Your task to perform on an android device: find photos in the google photos app Image 0: 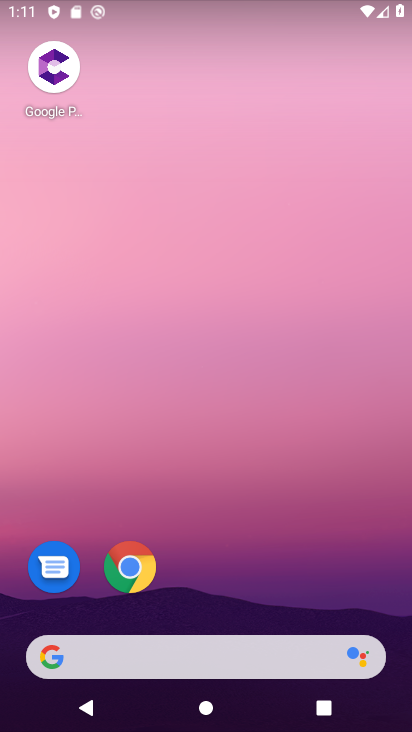
Step 0: drag from (270, 558) to (278, 270)
Your task to perform on an android device: find photos in the google photos app Image 1: 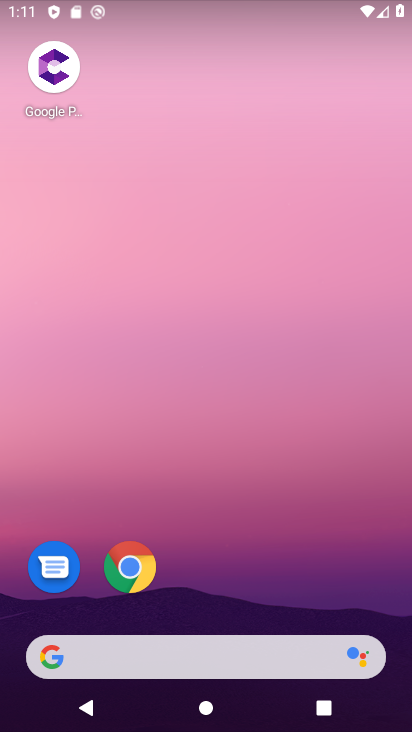
Step 1: drag from (277, 624) to (280, 207)
Your task to perform on an android device: find photos in the google photos app Image 2: 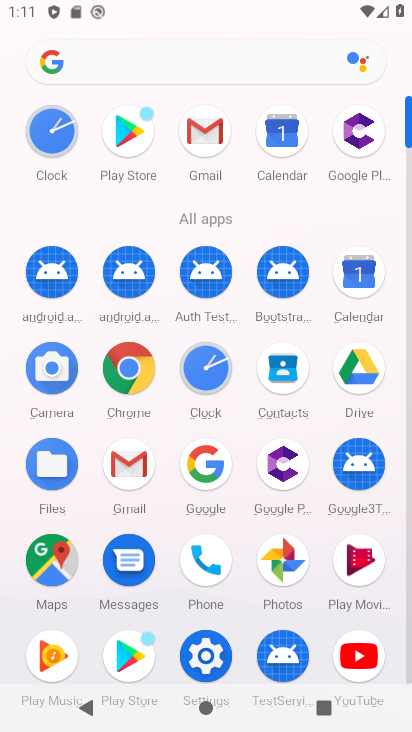
Step 2: click (276, 556)
Your task to perform on an android device: find photos in the google photos app Image 3: 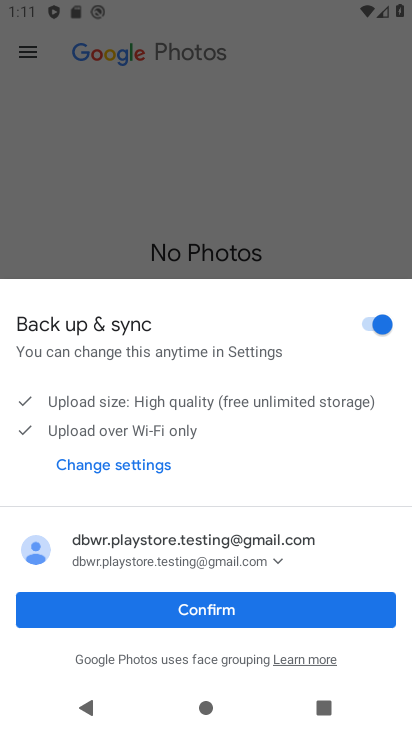
Step 3: click (228, 609)
Your task to perform on an android device: find photos in the google photos app Image 4: 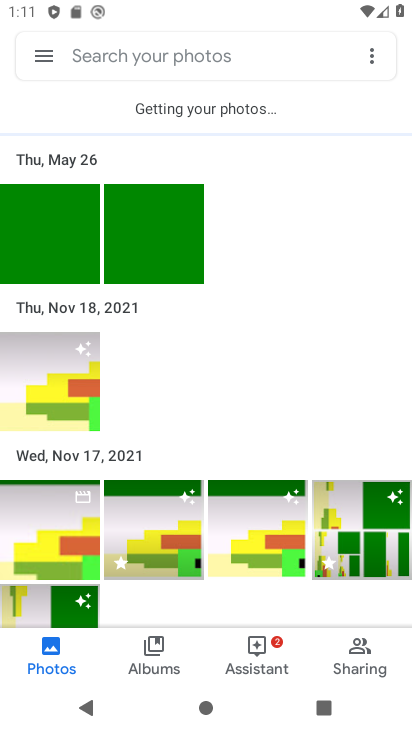
Step 4: task complete